Your task to perform on an android device: Go to Reddit.com Image 0: 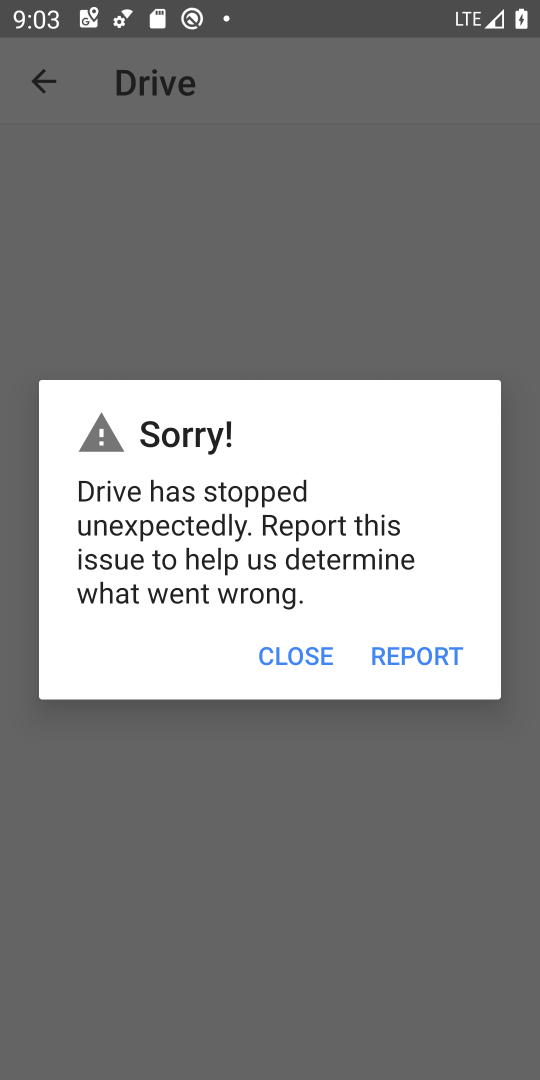
Step 0: press home button
Your task to perform on an android device: Go to Reddit.com Image 1: 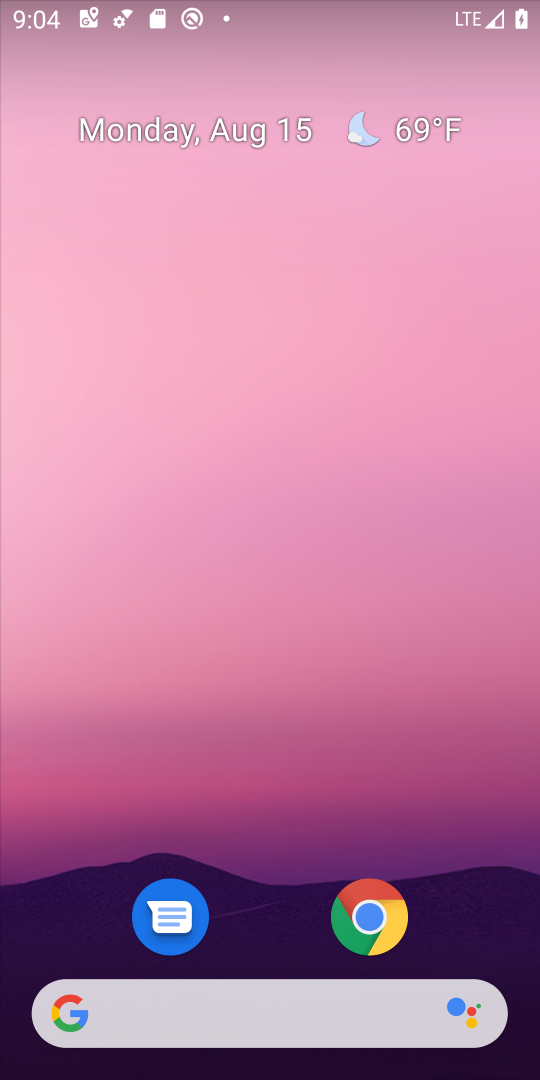
Step 1: click (265, 1040)
Your task to perform on an android device: Go to Reddit.com Image 2: 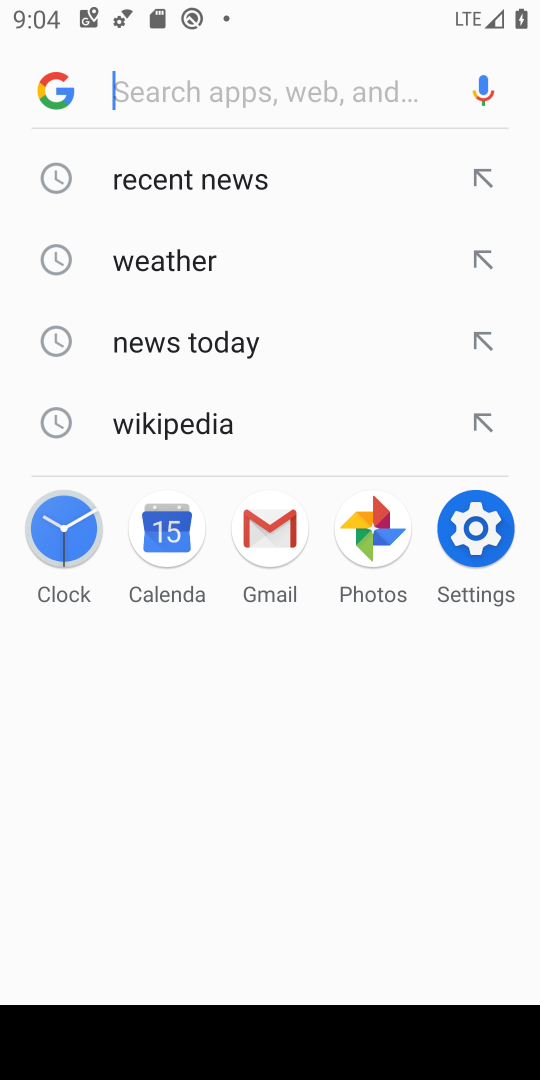
Step 2: type "reddit.com"
Your task to perform on an android device: Go to Reddit.com Image 3: 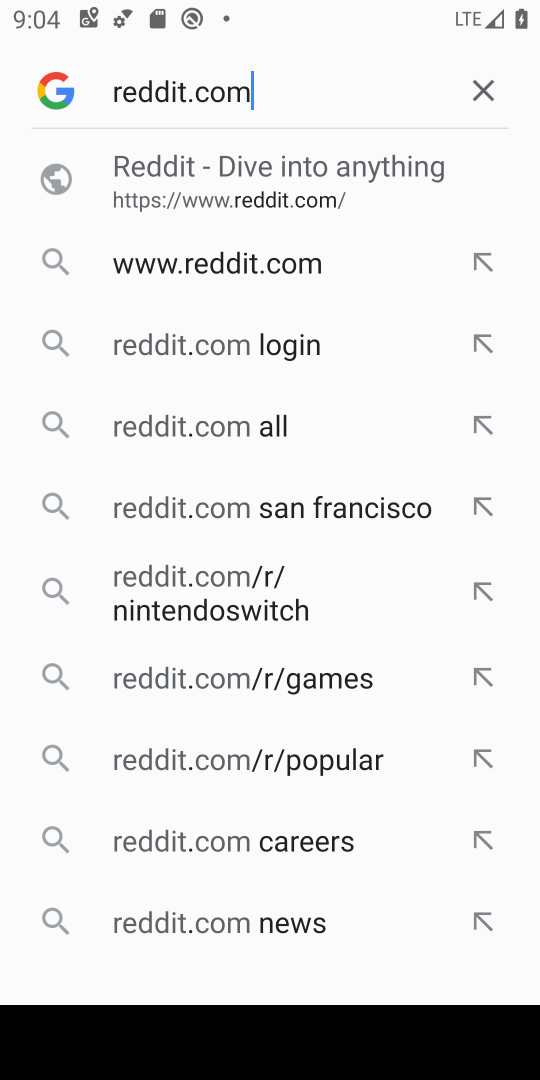
Step 3: click (357, 165)
Your task to perform on an android device: Go to Reddit.com Image 4: 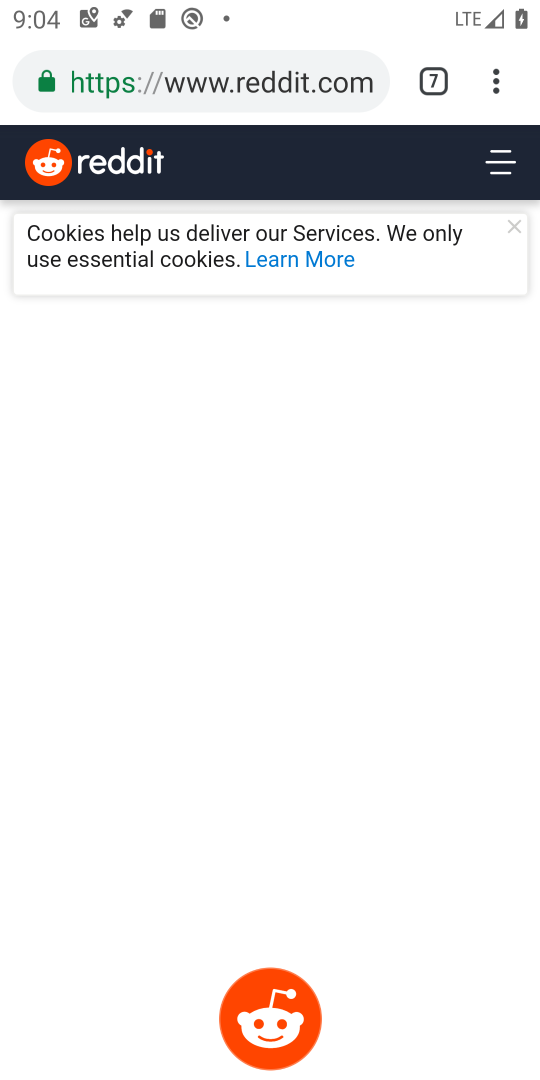
Step 4: task complete